Your task to perform on an android device: Go to settings Image 0: 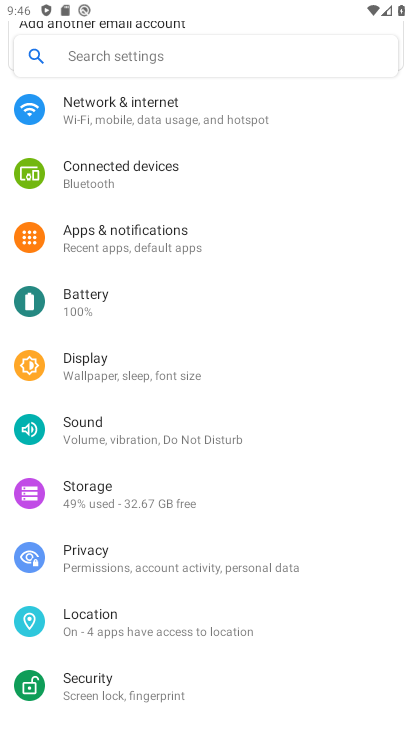
Step 0: drag from (121, 686) to (209, 173)
Your task to perform on an android device: Go to settings Image 1: 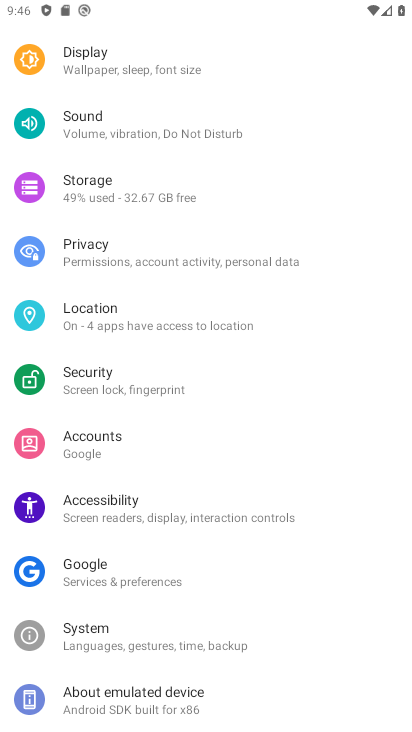
Step 1: task complete